Your task to perform on an android device: Open the stopwatch Image 0: 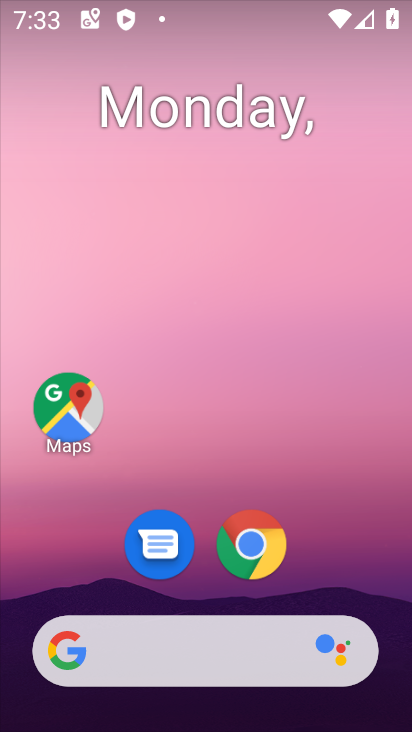
Step 0: drag from (337, 530) to (204, 58)
Your task to perform on an android device: Open the stopwatch Image 1: 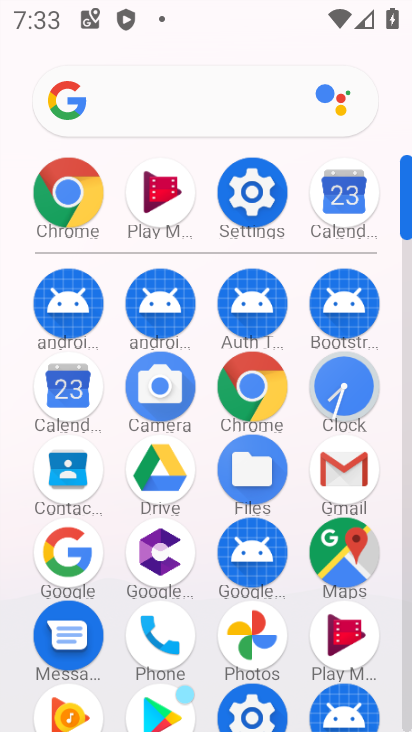
Step 1: click (336, 395)
Your task to perform on an android device: Open the stopwatch Image 2: 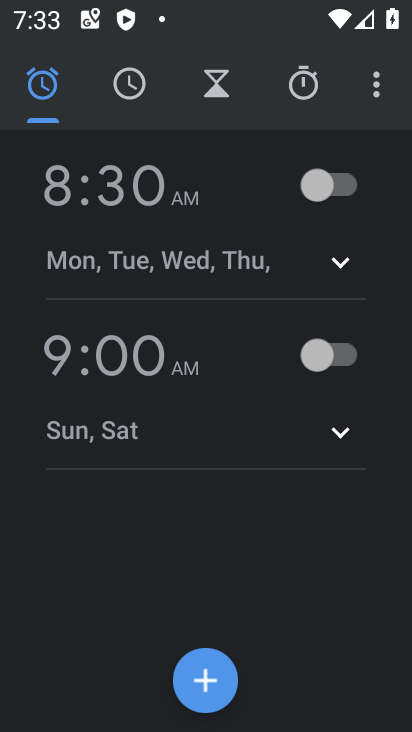
Step 2: click (304, 88)
Your task to perform on an android device: Open the stopwatch Image 3: 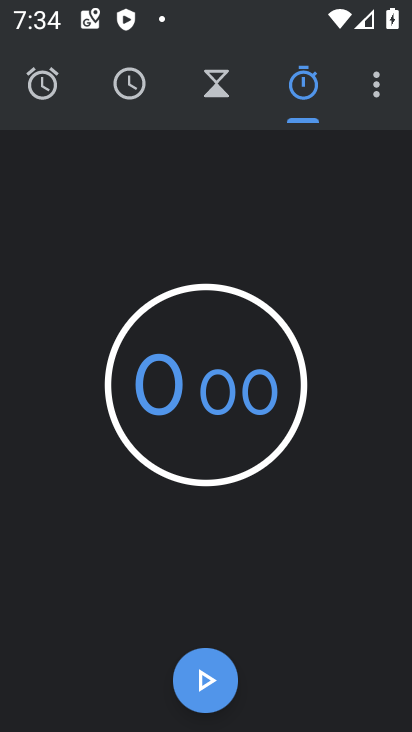
Step 3: task complete